Your task to perform on an android device: Find coffee shops on Maps Image 0: 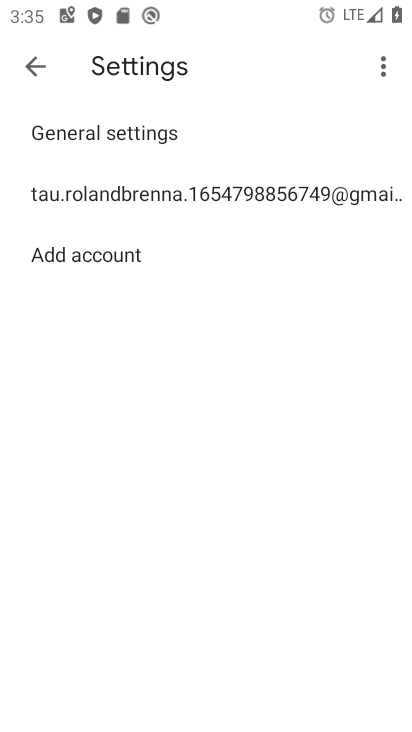
Step 0: press home button
Your task to perform on an android device: Find coffee shops on Maps Image 1: 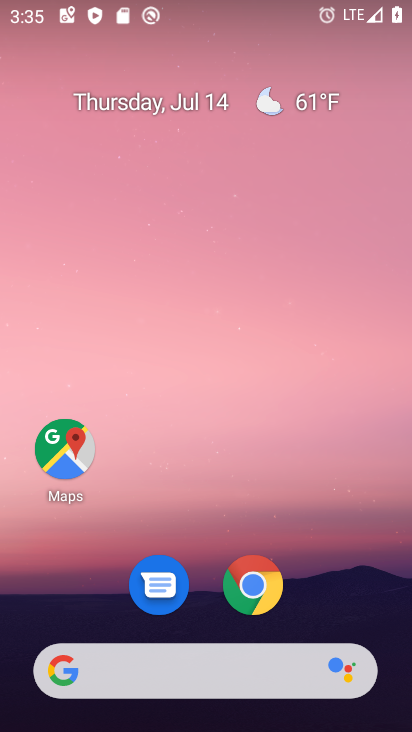
Step 1: click (54, 441)
Your task to perform on an android device: Find coffee shops on Maps Image 2: 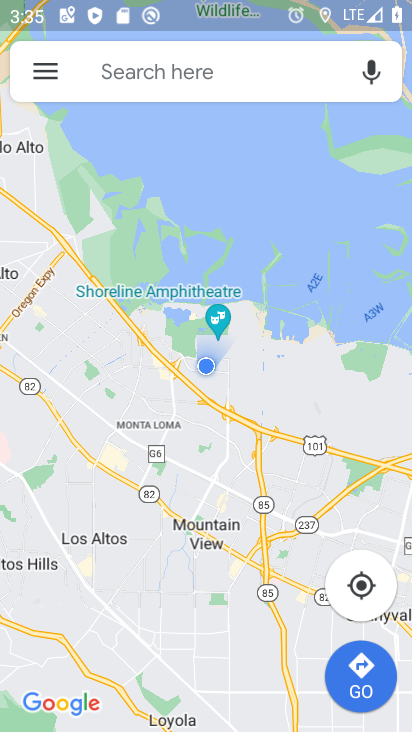
Step 2: click (150, 74)
Your task to perform on an android device: Find coffee shops on Maps Image 3: 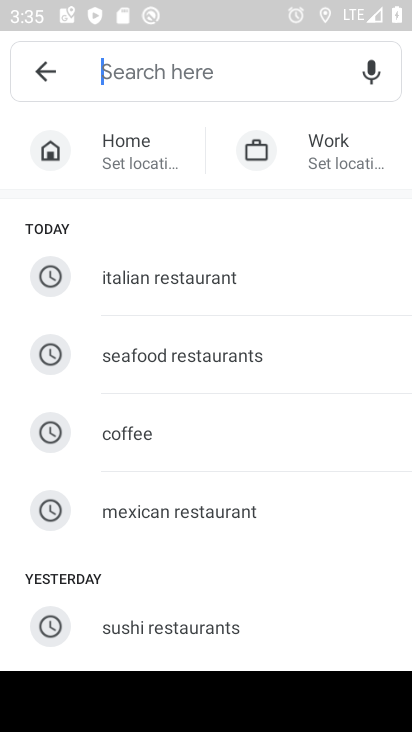
Step 3: click (135, 429)
Your task to perform on an android device: Find coffee shops on Maps Image 4: 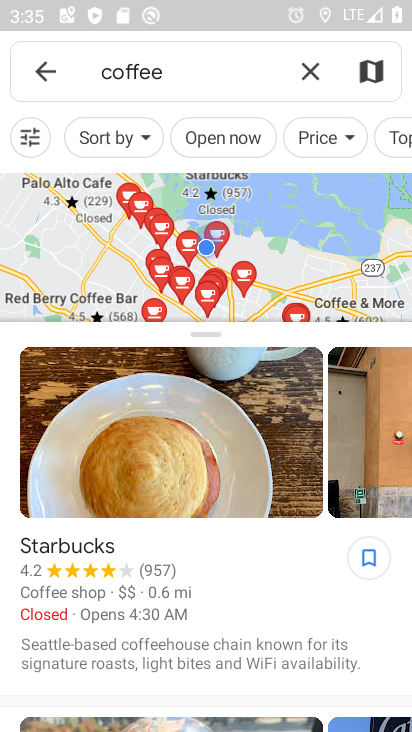
Step 4: task complete